Your task to perform on an android device: toggle translation in the chrome app Image 0: 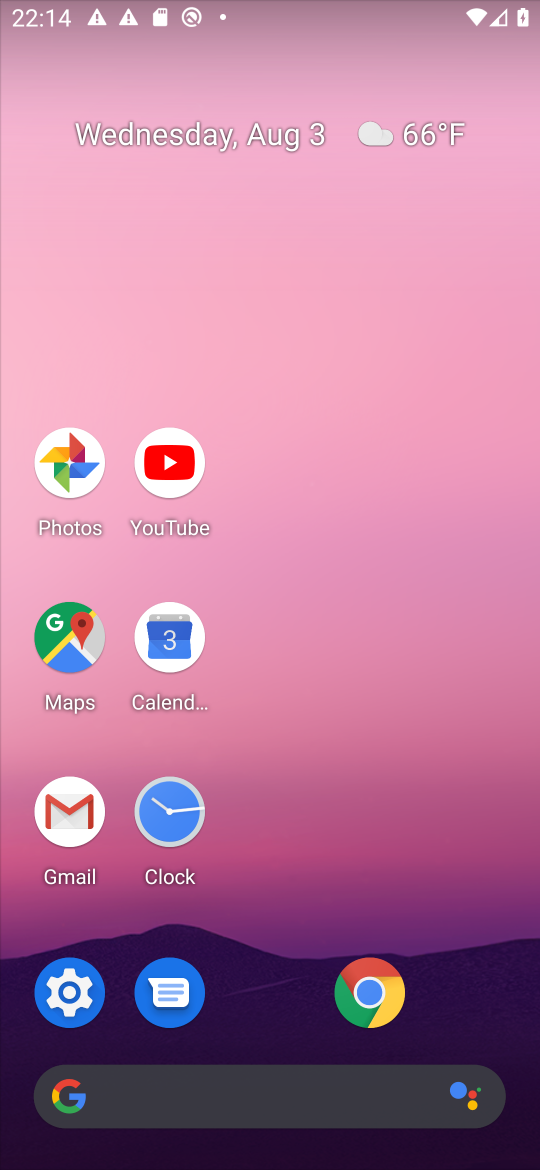
Step 0: click (374, 994)
Your task to perform on an android device: toggle translation in the chrome app Image 1: 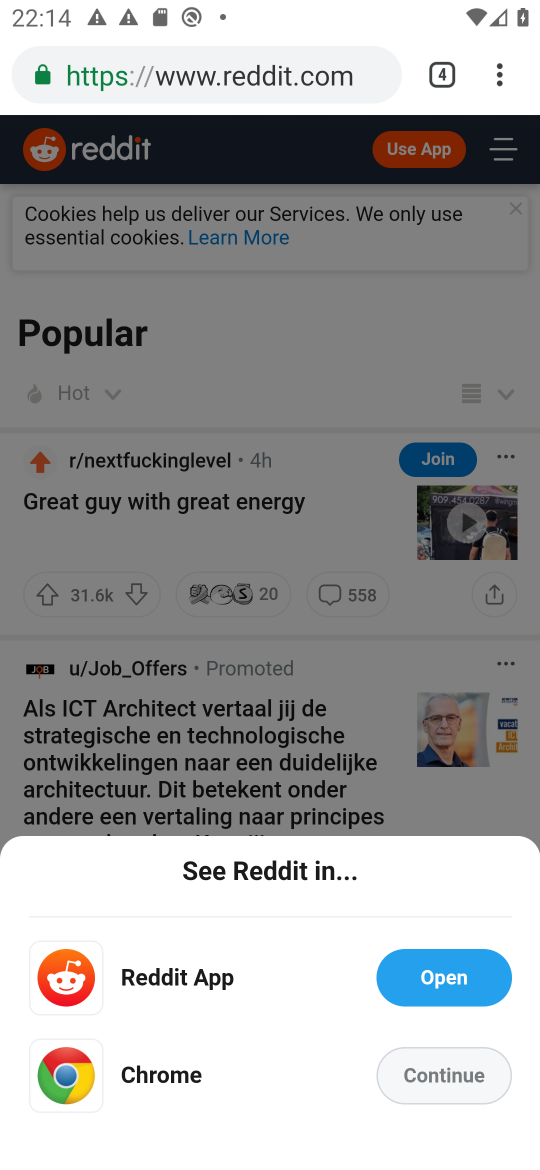
Step 1: click (500, 70)
Your task to perform on an android device: toggle translation in the chrome app Image 2: 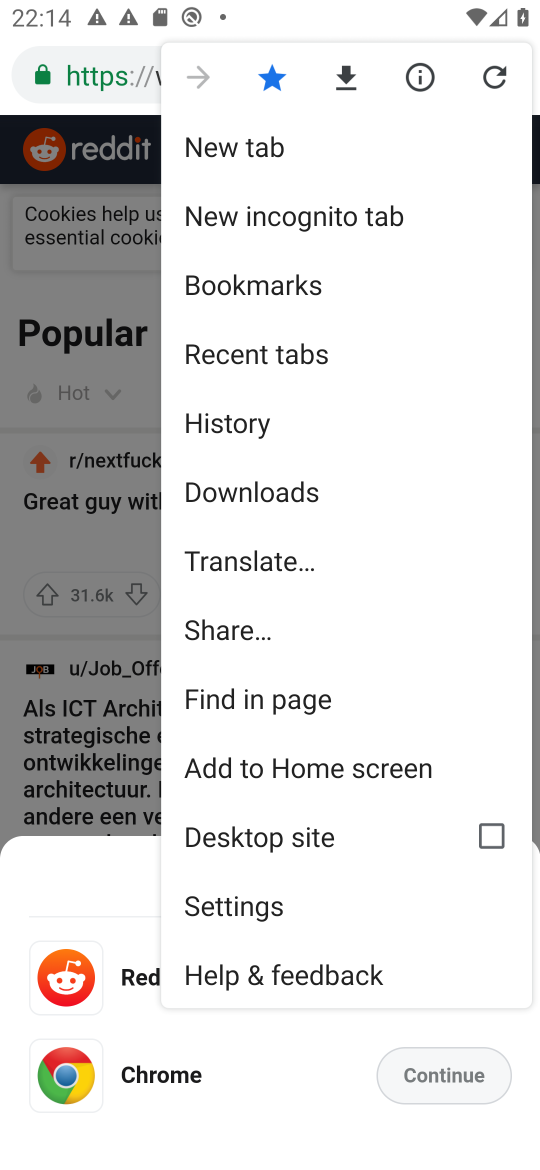
Step 2: click (249, 903)
Your task to perform on an android device: toggle translation in the chrome app Image 3: 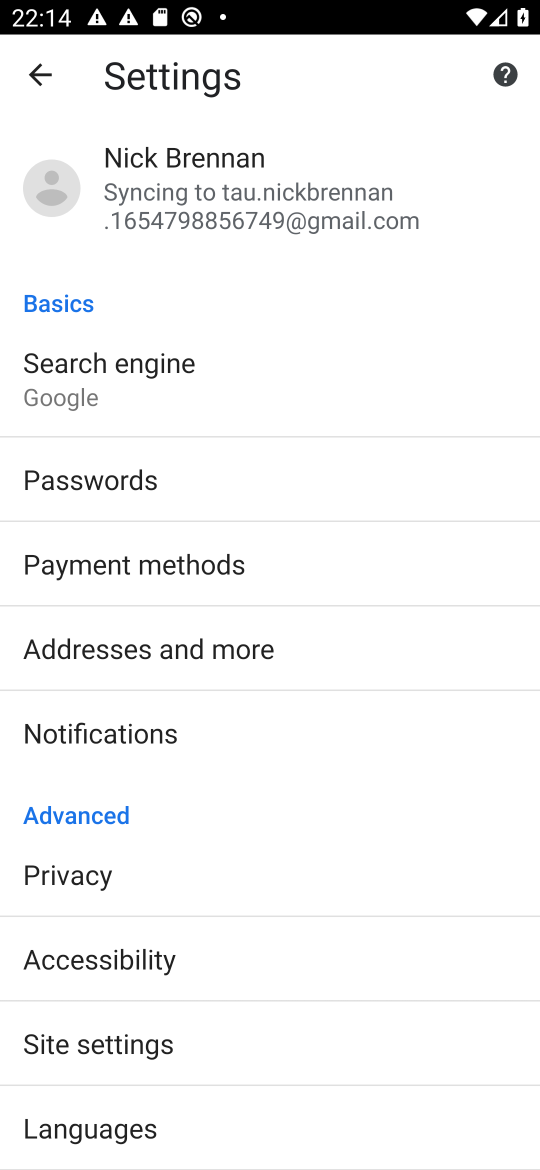
Step 3: click (106, 1126)
Your task to perform on an android device: toggle translation in the chrome app Image 4: 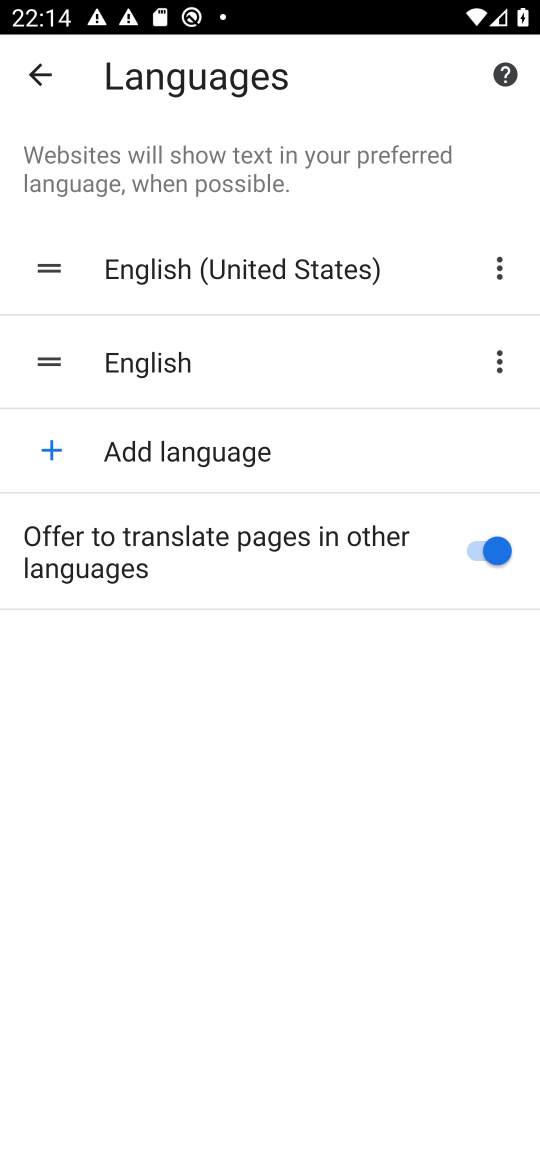
Step 4: click (492, 557)
Your task to perform on an android device: toggle translation in the chrome app Image 5: 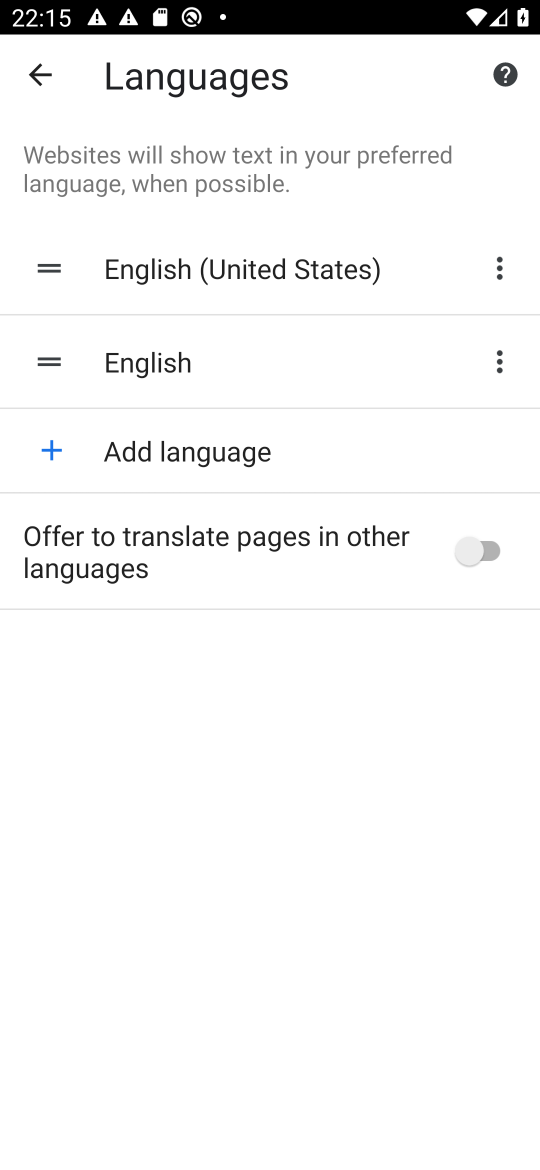
Step 5: task complete